Your task to perform on an android device: Open battery settings Image 0: 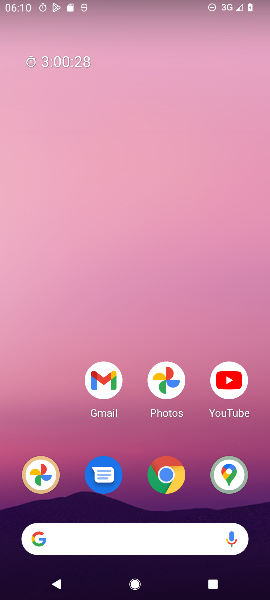
Step 0: press home button
Your task to perform on an android device: Open battery settings Image 1: 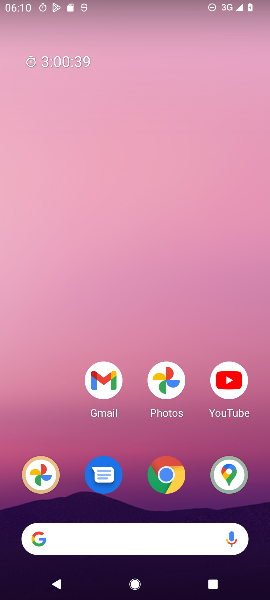
Step 1: drag from (63, 435) to (68, 189)
Your task to perform on an android device: Open battery settings Image 2: 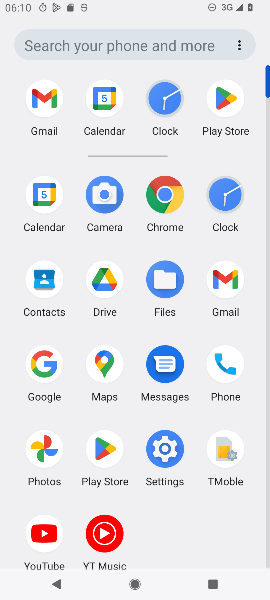
Step 2: click (167, 449)
Your task to perform on an android device: Open battery settings Image 3: 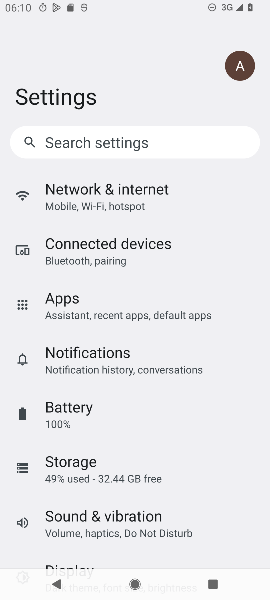
Step 3: drag from (220, 459) to (230, 375)
Your task to perform on an android device: Open battery settings Image 4: 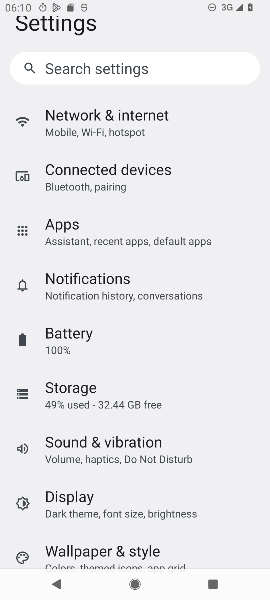
Step 4: drag from (216, 468) to (225, 374)
Your task to perform on an android device: Open battery settings Image 5: 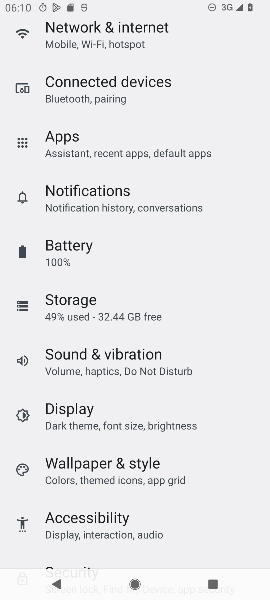
Step 5: drag from (217, 460) to (216, 376)
Your task to perform on an android device: Open battery settings Image 6: 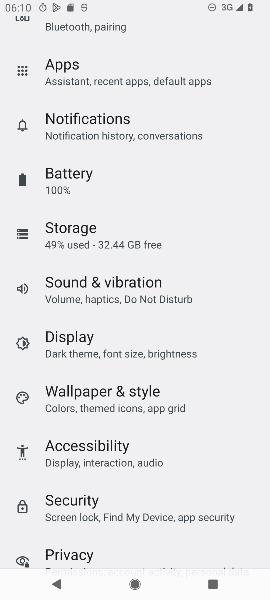
Step 6: drag from (219, 437) to (223, 355)
Your task to perform on an android device: Open battery settings Image 7: 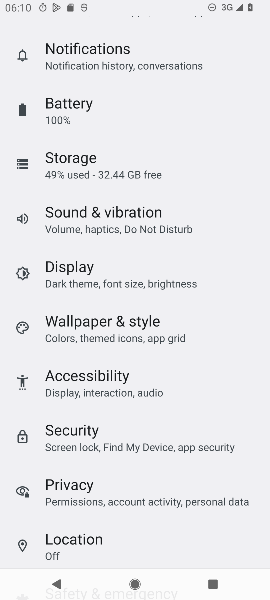
Step 7: drag from (230, 397) to (230, 317)
Your task to perform on an android device: Open battery settings Image 8: 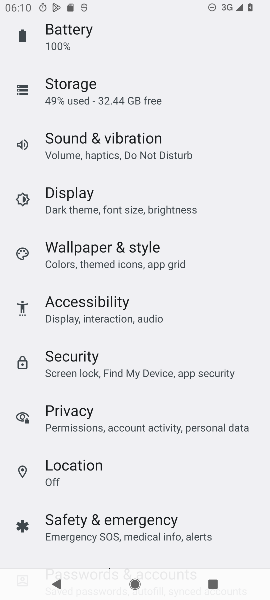
Step 8: drag from (224, 485) to (225, 397)
Your task to perform on an android device: Open battery settings Image 9: 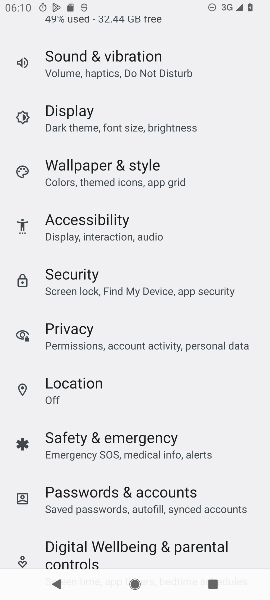
Step 9: drag from (220, 473) to (228, 366)
Your task to perform on an android device: Open battery settings Image 10: 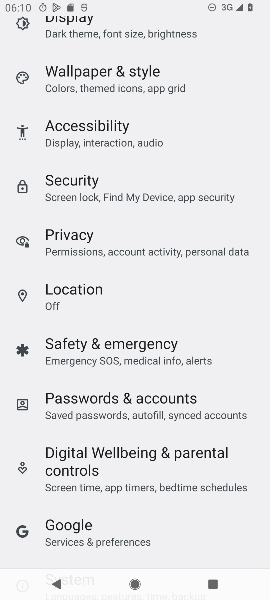
Step 10: drag from (232, 291) to (234, 381)
Your task to perform on an android device: Open battery settings Image 11: 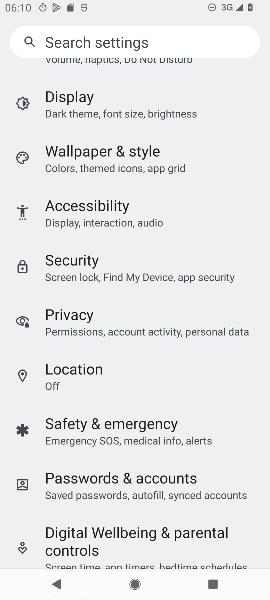
Step 11: drag from (236, 234) to (237, 320)
Your task to perform on an android device: Open battery settings Image 12: 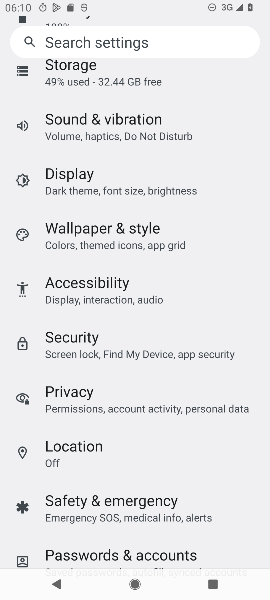
Step 12: drag from (236, 213) to (238, 300)
Your task to perform on an android device: Open battery settings Image 13: 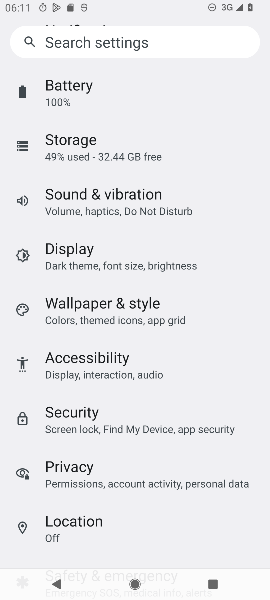
Step 13: drag from (236, 194) to (235, 293)
Your task to perform on an android device: Open battery settings Image 14: 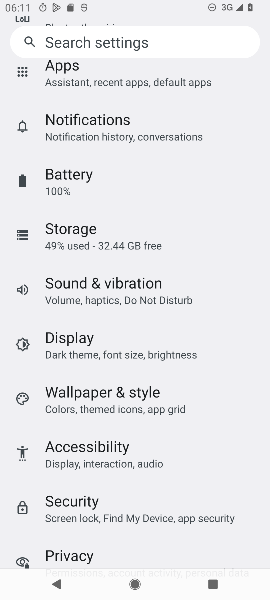
Step 14: drag from (241, 169) to (238, 269)
Your task to perform on an android device: Open battery settings Image 15: 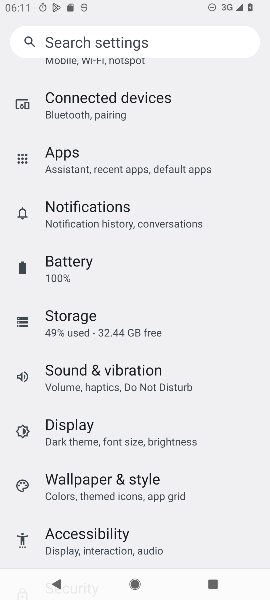
Step 15: drag from (238, 134) to (226, 371)
Your task to perform on an android device: Open battery settings Image 16: 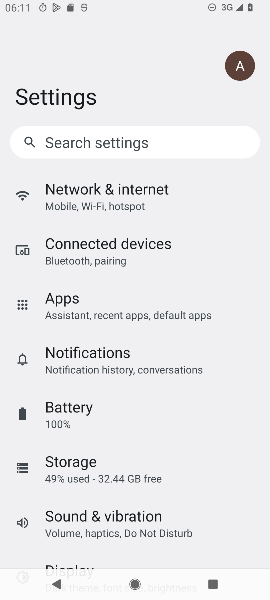
Step 16: click (147, 418)
Your task to perform on an android device: Open battery settings Image 17: 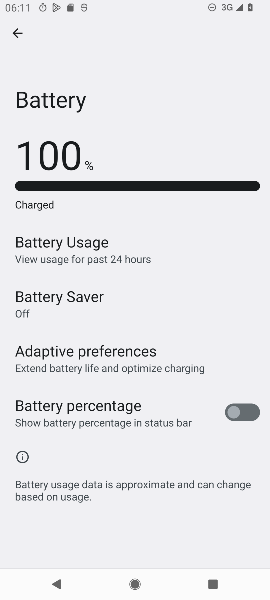
Step 17: task complete